Your task to perform on an android device: Open Youtube and go to "Your channel" Image 0: 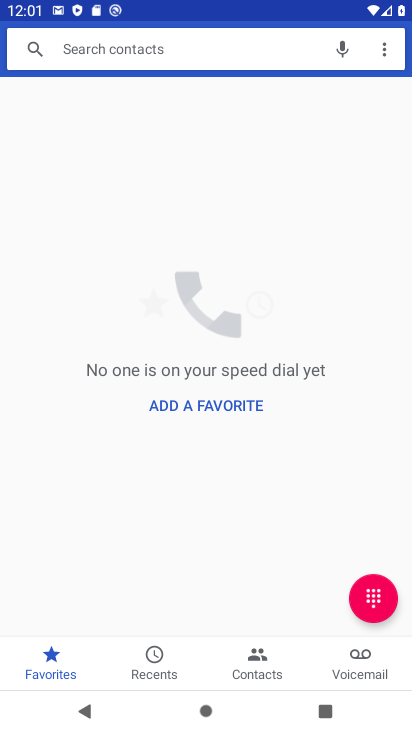
Step 0: press home button
Your task to perform on an android device: Open Youtube and go to "Your channel" Image 1: 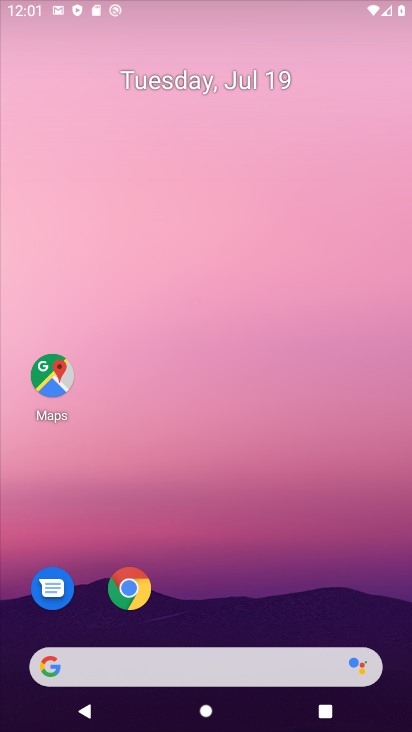
Step 1: drag from (373, 634) to (243, 146)
Your task to perform on an android device: Open Youtube and go to "Your channel" Image 2: 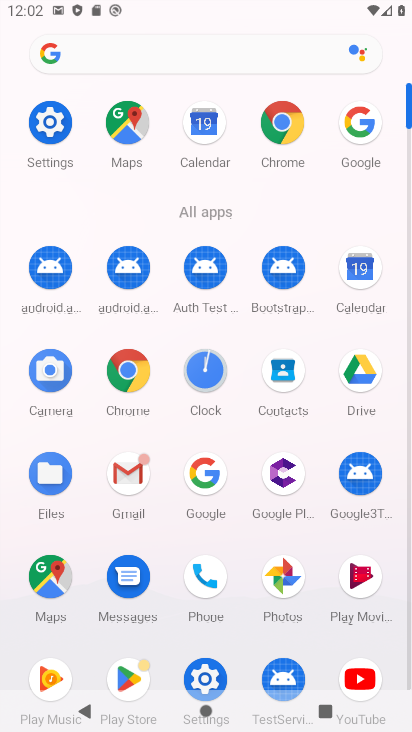
Step 2: click (363, 671)
Your task to perform on an android device: Open Youtube and go to "Your channel" Image 3: 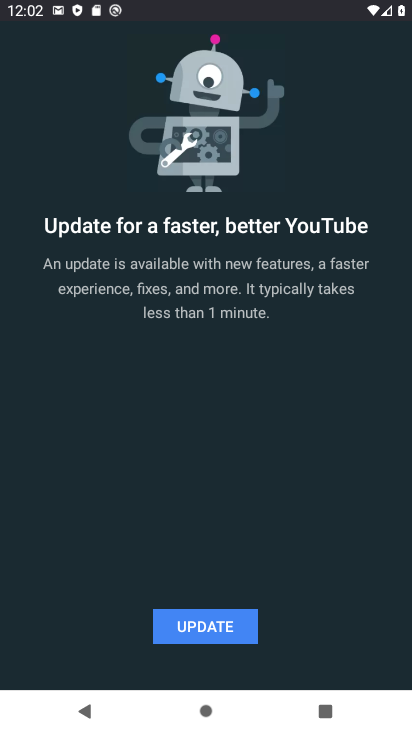
Step 3: click (187, 631)
Your task to perform on an android device: Open Youtube and go to "Your channel" Image 4: 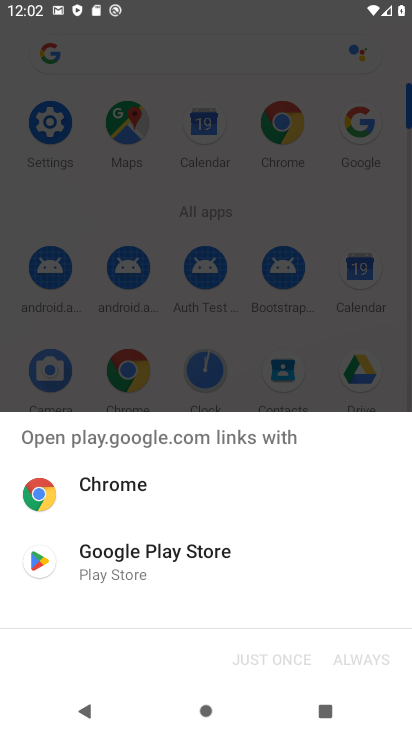
Step 4: click (95, 572)
Your task to perform on an android device: Open Youtube and go to "Your channel" Image 5: 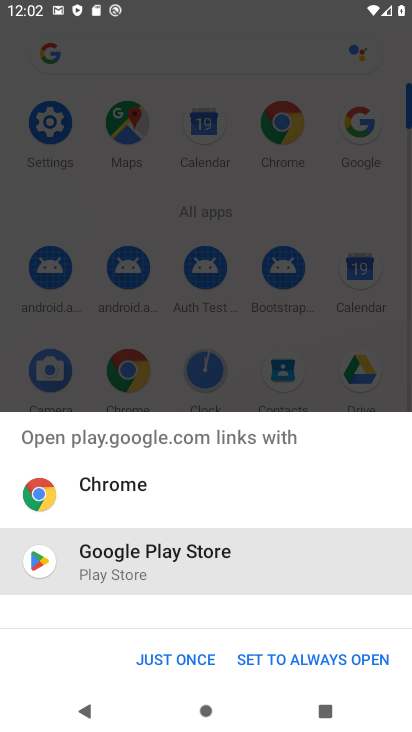
Step 5: click (163, 653)
Your task to perform on an android device: Open Youtube and go to "Your channel" Image 6: 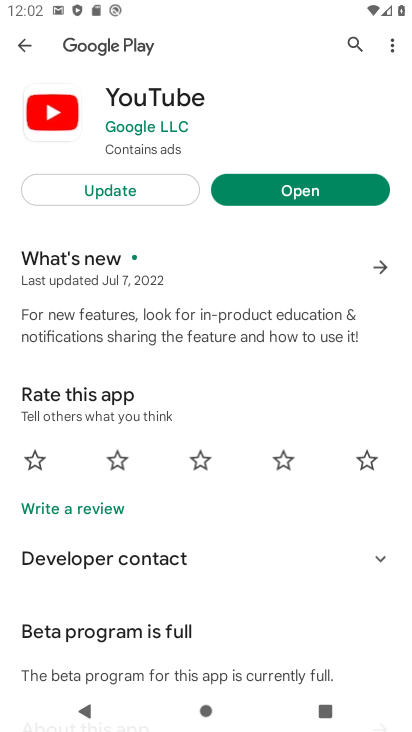
Step 6: click (67, 204)
Your task to perform on an android device: Open Youtube and go to "Your channel" Image 7: 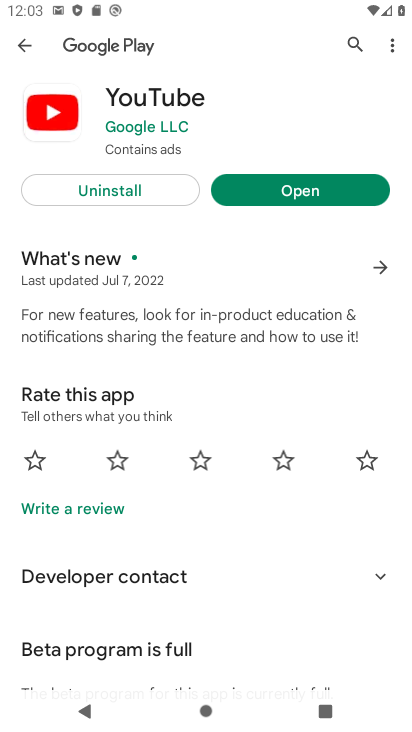
Step 7: click (325, 185)
Your task to perform on an android device: Open Youtube and go to "Your channel" Image 8: 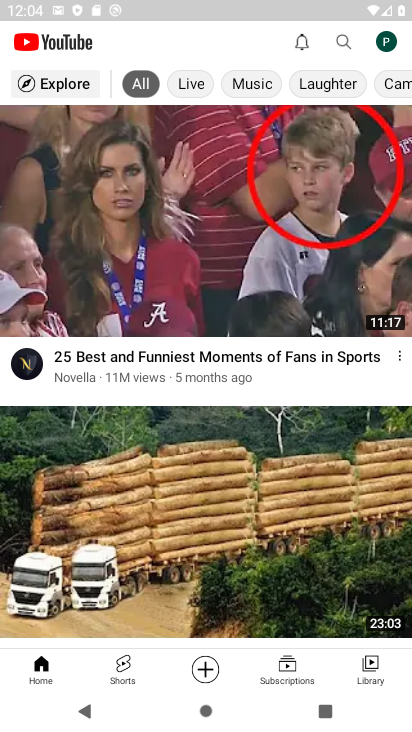
Step 8: click (392, 50)
Your task to perform on an android device: Open Youtube and go to "Your channel" Image 9: 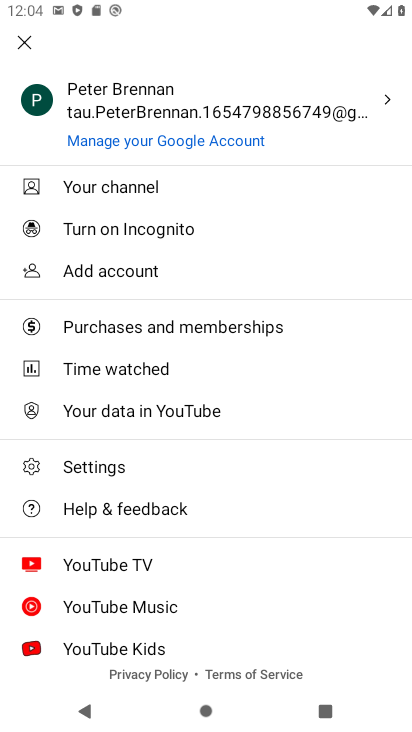
Step 9: click (143, 183)
Your task to perform on an android device: Open Youtube and go to "Your channel" Image 10: 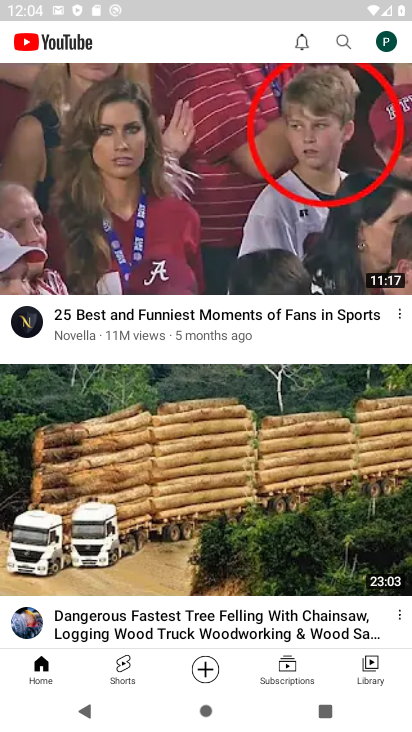
Step 10: click (387, 41)
Your task to perform on an android device: Open Youtube and go to "Your channel" Image 11: 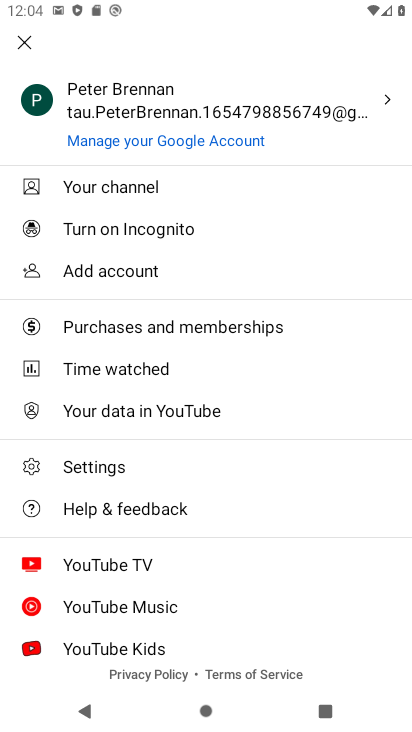
Step 11: click (143, 190)
Your task to perform on an android device: Open Youtube and go to "Your channel" Image 12: 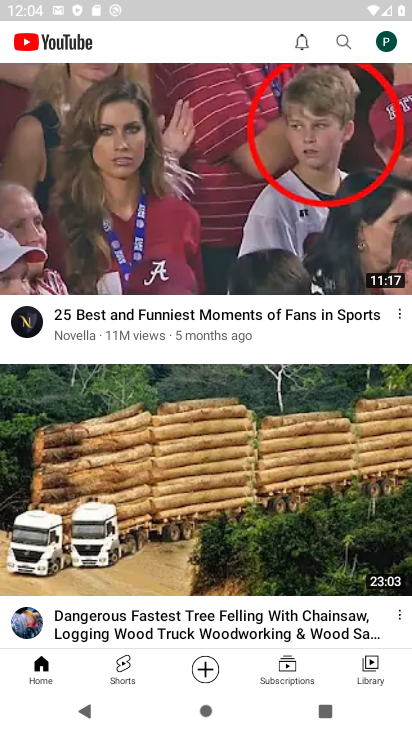
Step 12: task complete